Your task to perform on an android device: open app "ZOOM Cloud Meetings" (install if not already installed), go to login, and select forgot password Image 0: 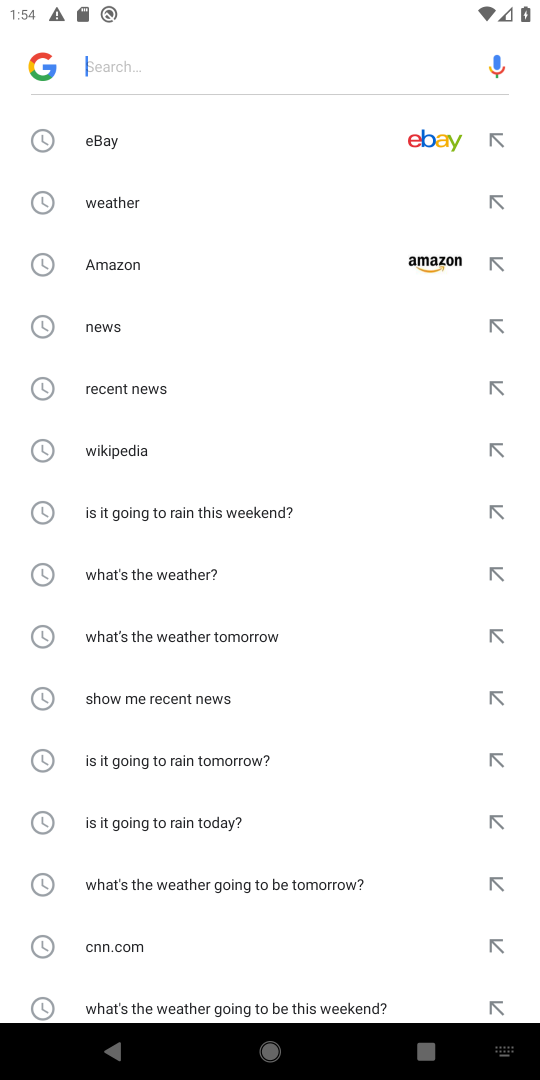
Step 0: press home button
Your task to perform on an android device: open app "ZOOM Cloud Meetings" (install if not already installed), go to login, and select forgot password Image 1: 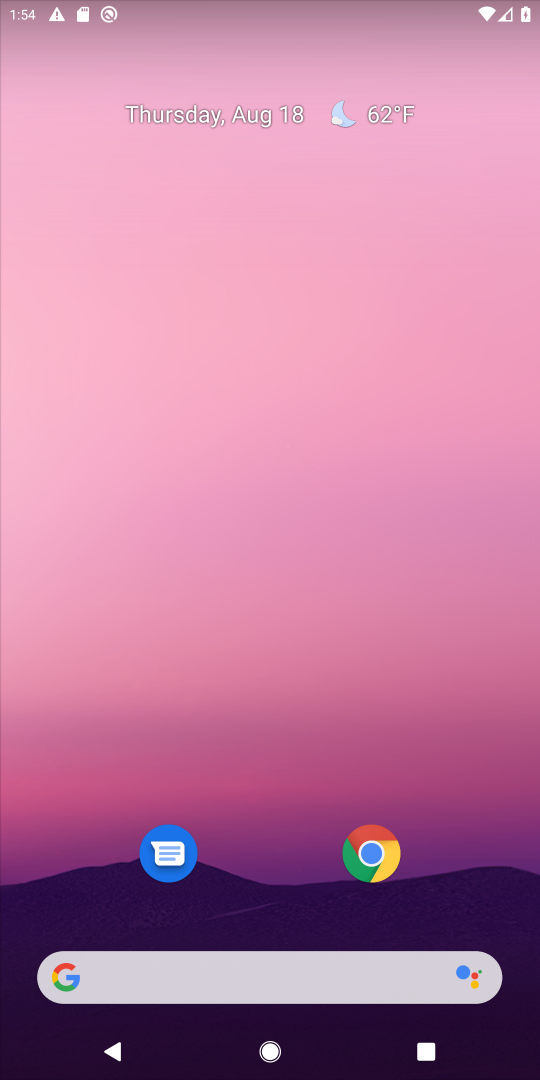
Step 1: drag from (496, 910) to (251, 38)
Your task to perform on an android device: open app "ZOOM Cloud Meetings" (install if not already installed), go to login, and select forgot password Image 2: 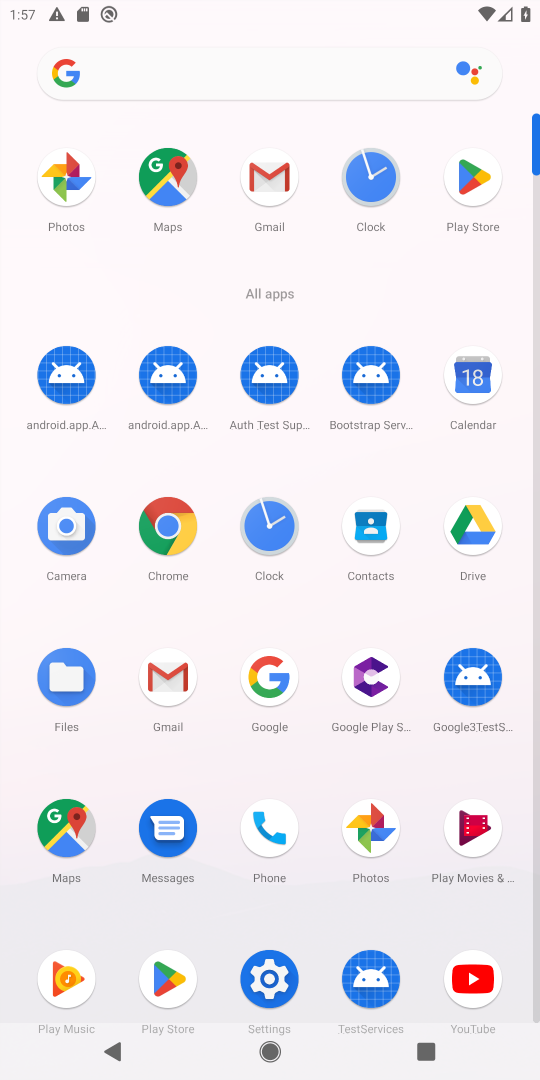
Step 2: click (163, 953)
Your task to perform on an android device: open app "ZOOM Cloud Meetings" (install if not already installed), go to login, and select forgot password Image 3: 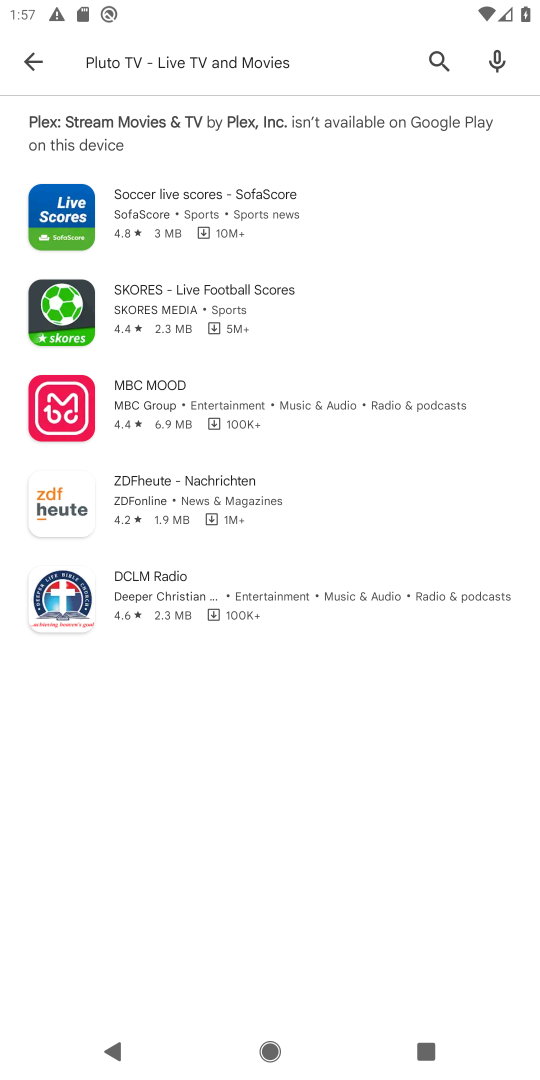
Step 3: press back button
Your task to perform on an android device: open app "ZOOM Cloud Meetings" (install if not already installed), go to login, and select forgot password Image 4: 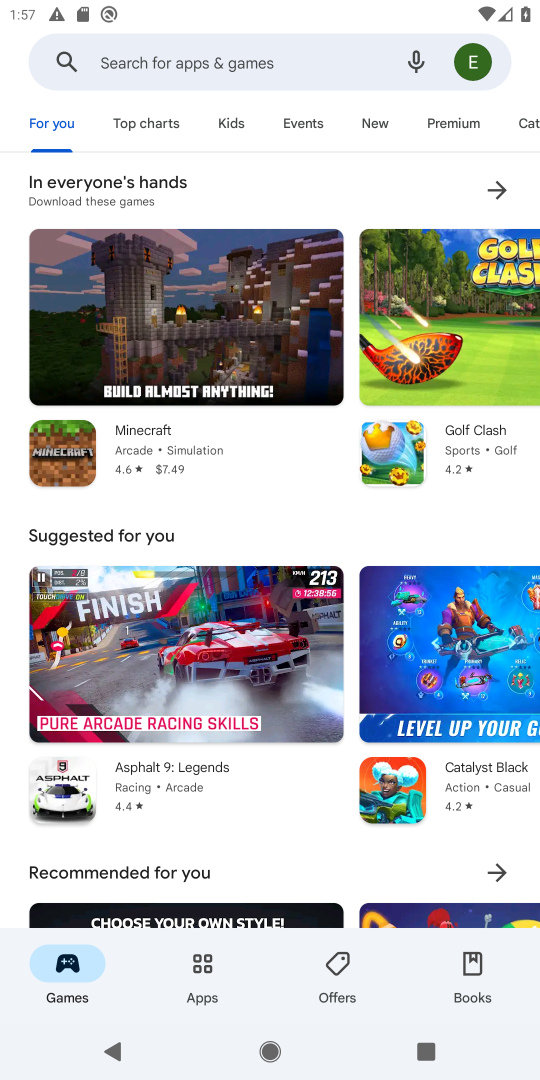
Step 4: click (369, 985)
Your task to perform on an android device: open app "ZOOM Cloud Meetings" (install if not already installed), go to login, and select forgot password Image 5: 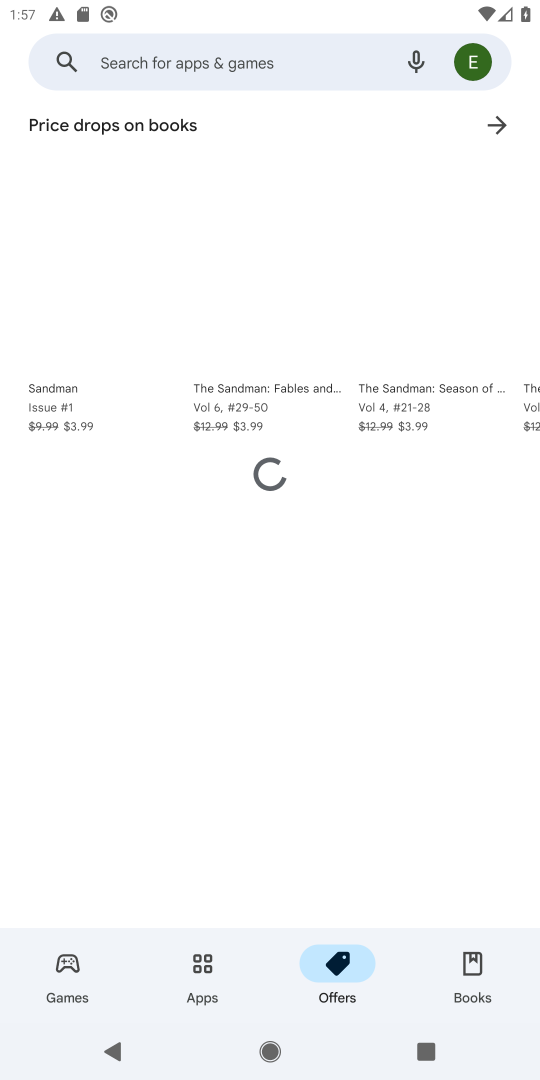
Step 5: click (142, 64)
Your task to perform on an android device: open app "ZOOM Cloud Meetings" (install if not already installed), go to login, and select forgot password Image 6: 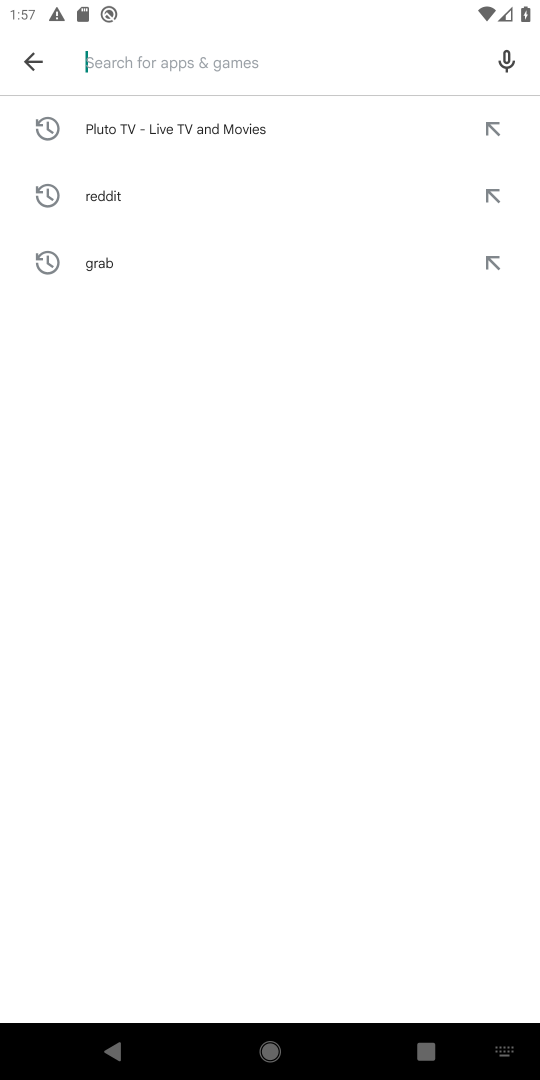
Step 6: type "ZOOM Cloud Meetings"
Your task to perform on an android device: open app "ZOOM Cloud Meetings" (install if not already installed), go to login, and select forgot password Image 7: 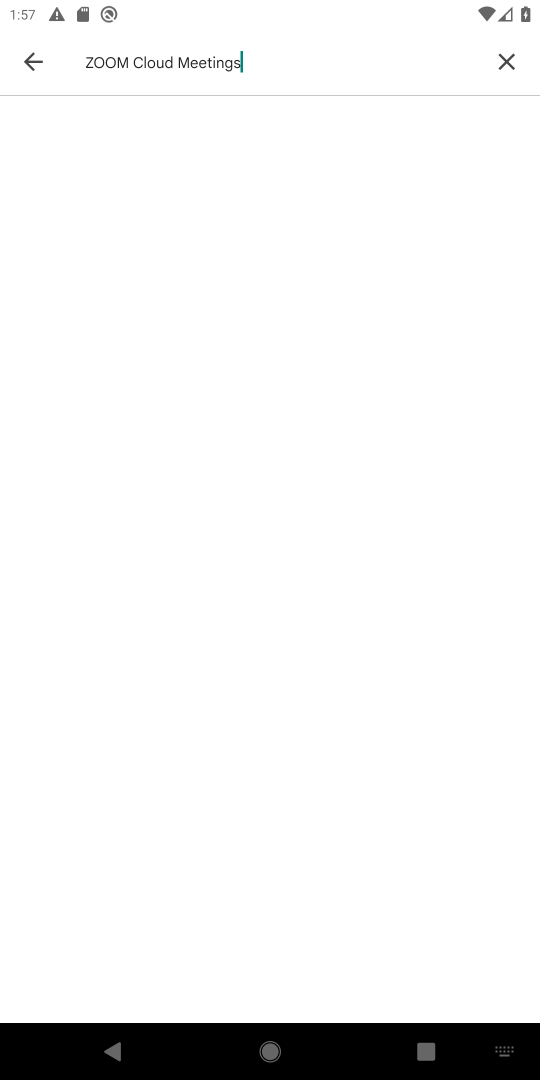
Step 7: task complete